Your task to perform on an android device: open wifi settings Image 0: 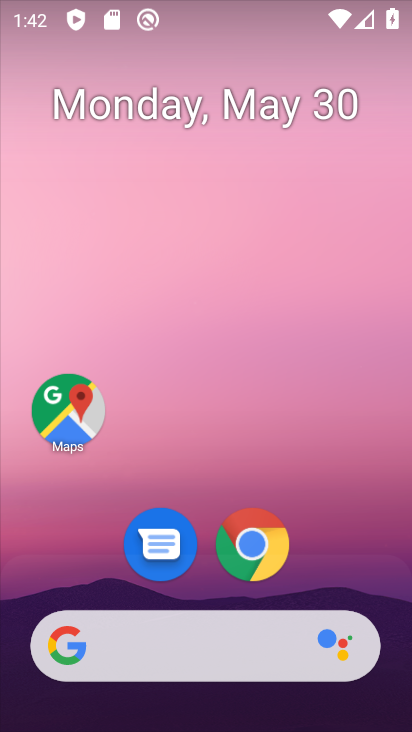
Step 0: drag from (256, 151) to (268, 96)
Your task to perform on an android device: open wifi settings Image 1: 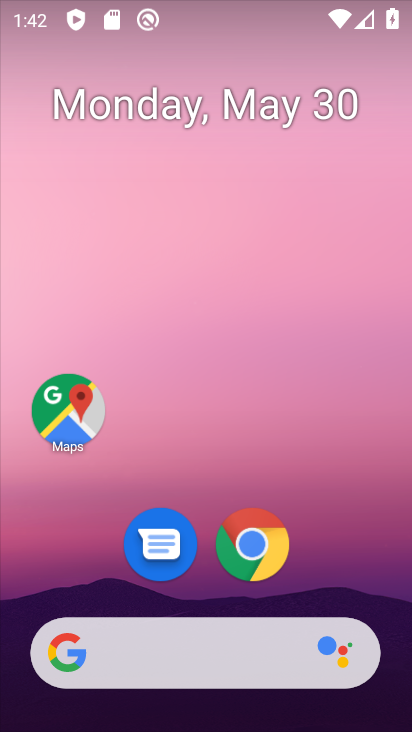
Step 1: drag from (227, 532) to (305, 63)
Your task to perform on an android device: open wifi settings Image 2: 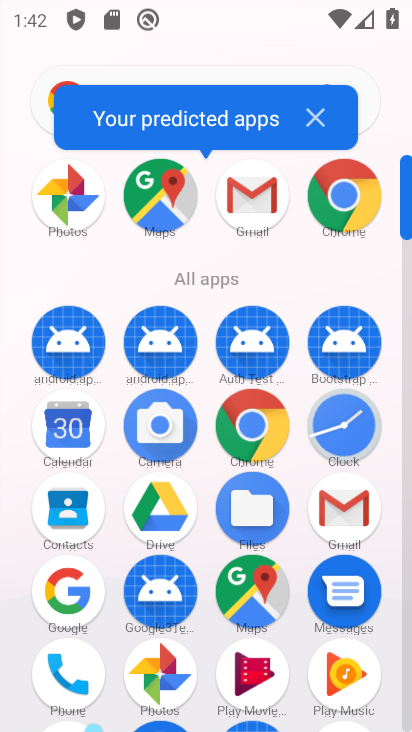
Step 2: drag from (202, 595) to (317, 126)
Your task to perform on an android device: open wifi settings Image 3: 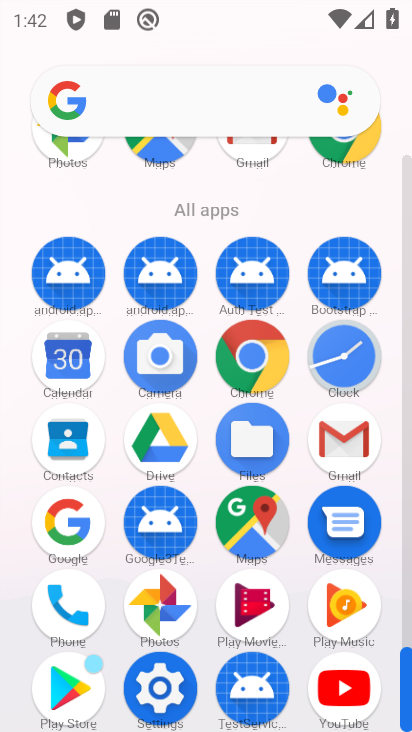
Step 3: click (168, 683)
Your task to perform on an android device: open wifi settings Image 4: 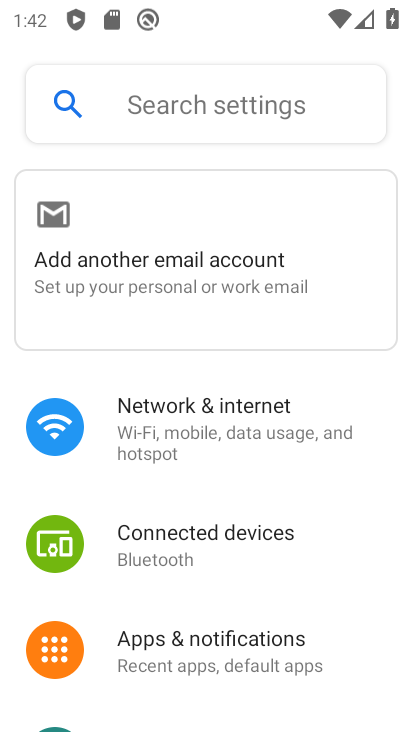
Step 4: click (204, 416)
Your task to perform on an android device: open wifi settings Image 5: 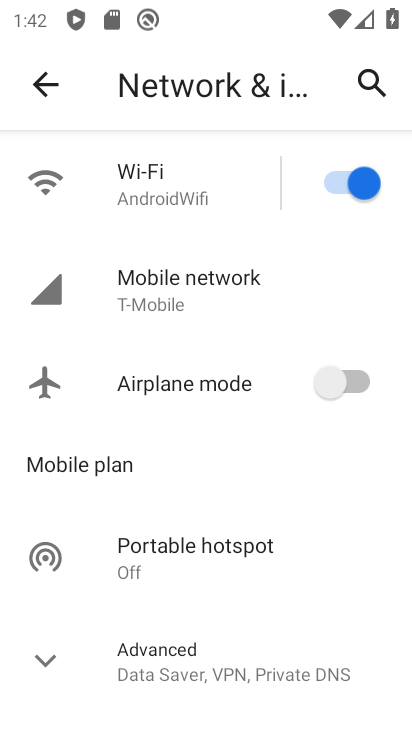
Step 5: click (145, 181)
Your task to perform on an android device: open wifi settings Image 6: 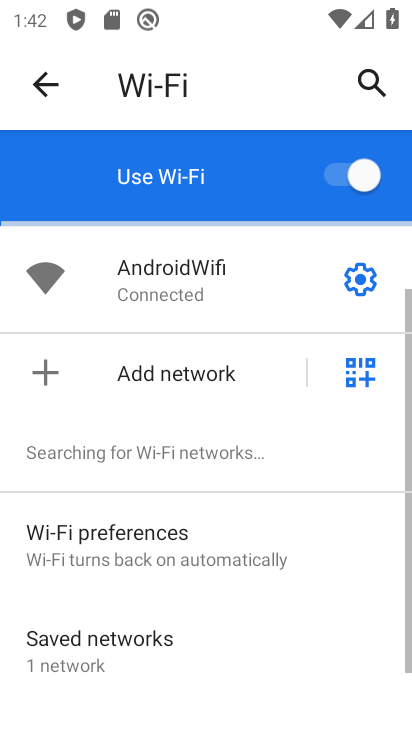
Step 6: click (352, 283)
Your task to perform on an android device: open wifi settings Image 7: 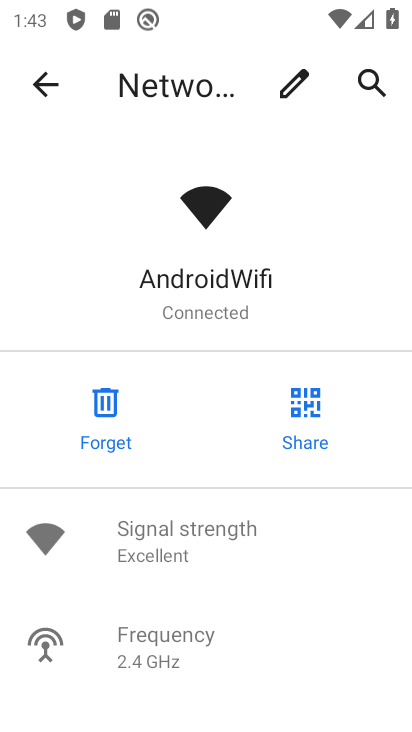
Step 7: drag from (199, 659) to (231, 291)
Your task to perform on an android device: open wifi settings Image 8: 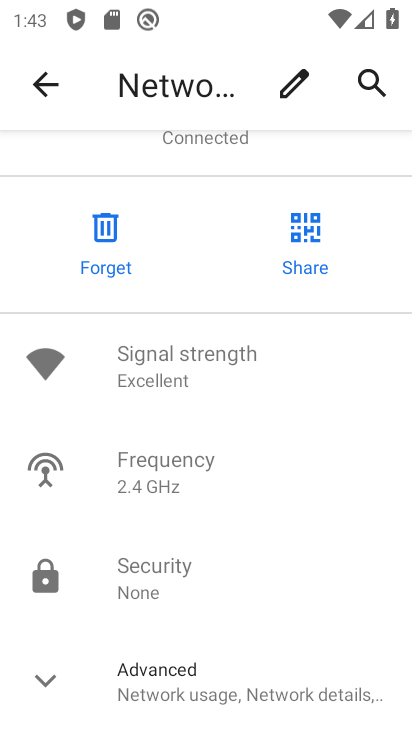
Step 8: click (174, 697)
Your task to perform on an android device: open wifi settings Image 9: 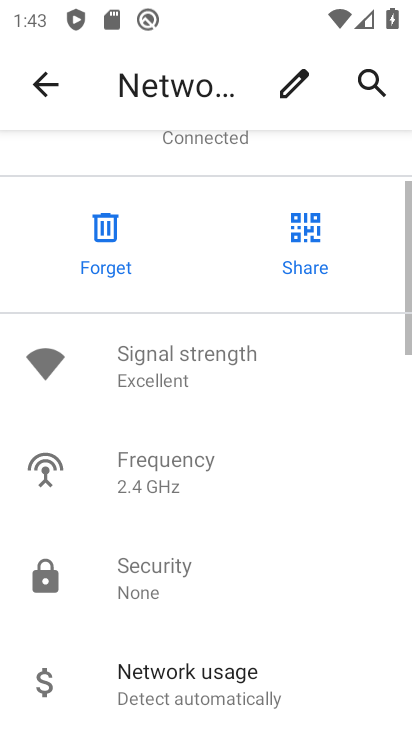
Step 9: task complete